Your task to perform on an android device: toggle data saver in the chrome app Image 0: 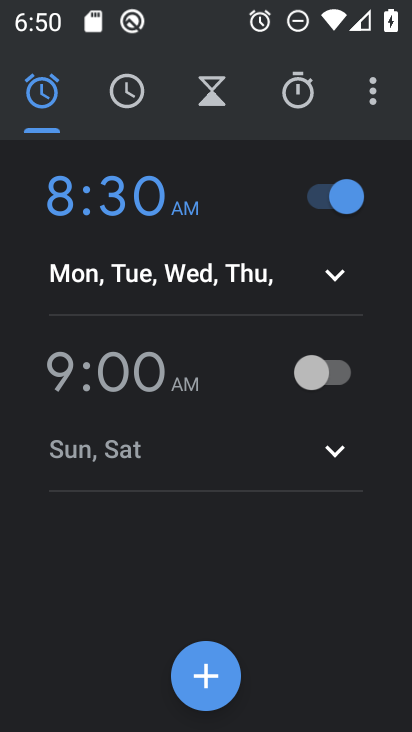
Step 0: press home button
Your task to perform on an android device: toggle data saver in the chrome app Image 1: 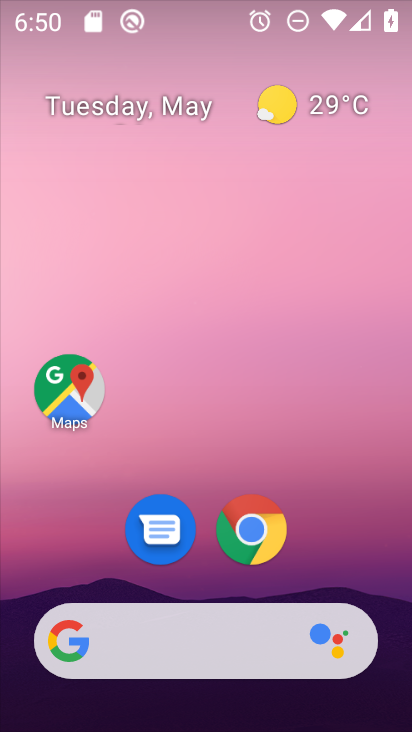
Step 1: drag from (387, 626) to (293, 14)
Your task to perform on an android device: toggle data saver in the chrome app Image 2: 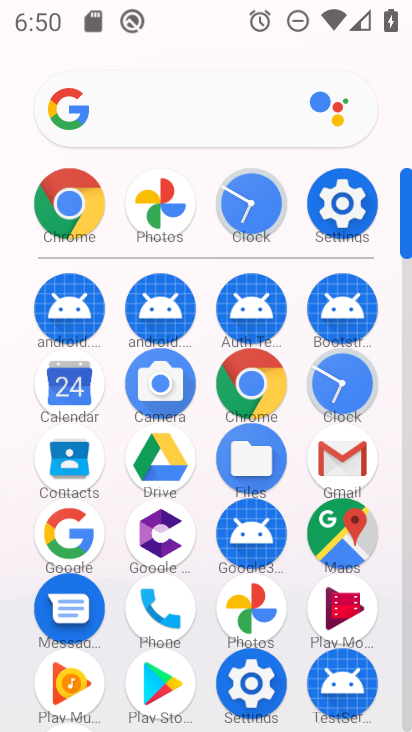
Step 2: click (270, 388)
Your task to perform on an android device: toggle data saver in the chrome app Image 3: 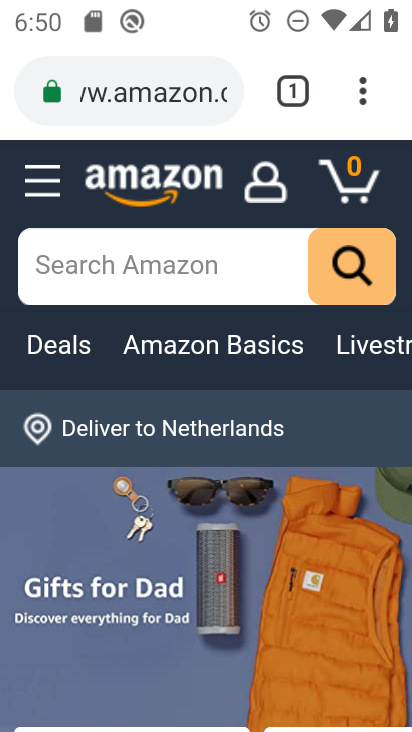
Step 3: press back button
Your task to perform on an android device: toggle data saver in the chrome app Image 4: 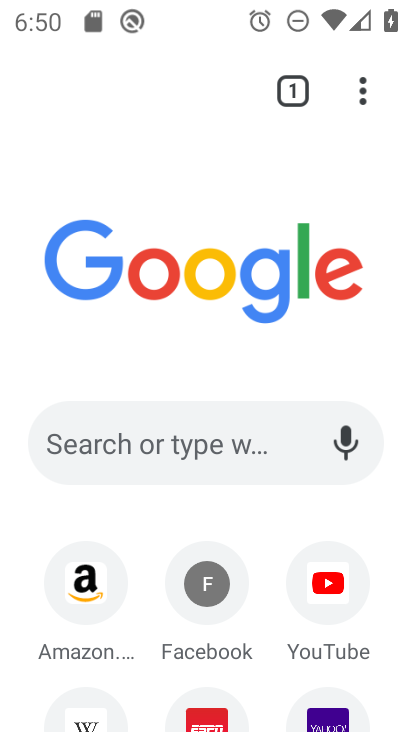
Step 4: click (367, 85)
Your task to perform on an android device: toggle data saver in the chrome app Image 5: 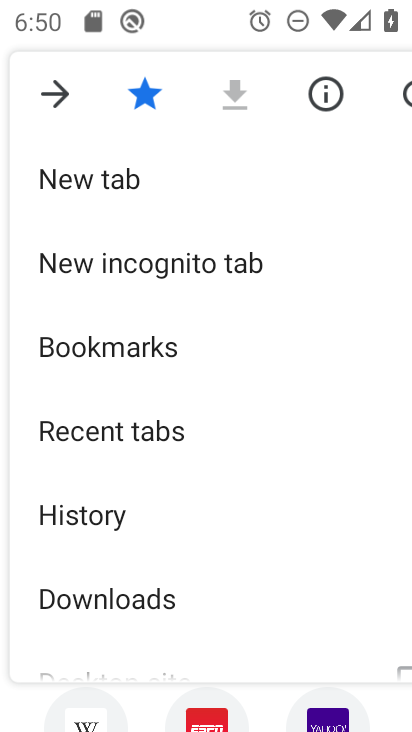
Step 5: drag from (251, 594) to (193, 116)
Your task to perform on an android device: toggle data saver in the chrome app Image 6: 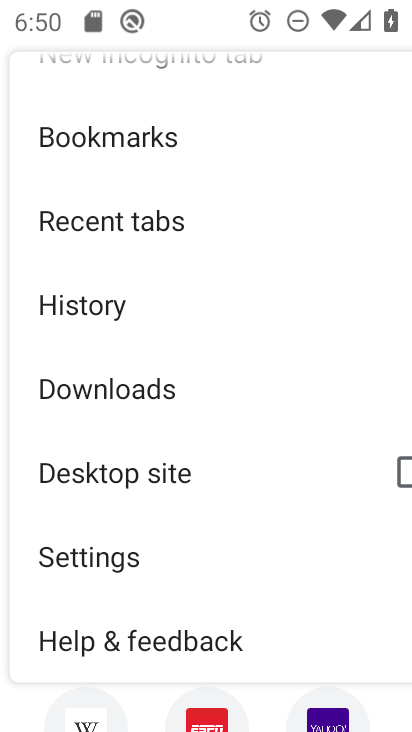
Step 6: click (131, 556)
Your task to perform on an android device: toggle data saver in the chrome app Image 7: 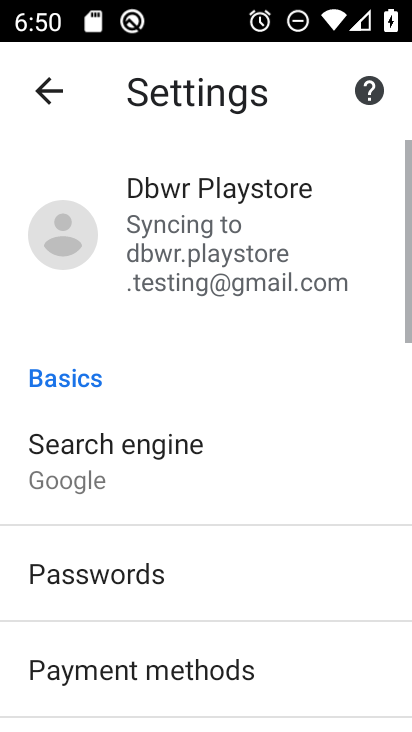
Step 7: drag from (139, 577) to (142, 44)
Your task to perform on an android device: toggle data saver in the chrome app Image 8: 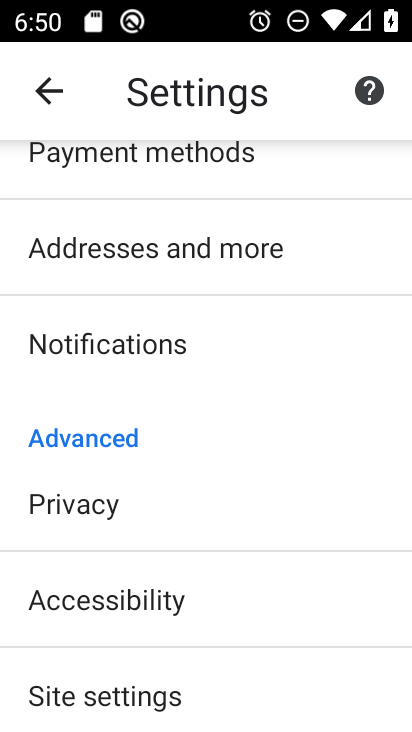
Step 8: drag from (169, 625) to (173, 159)
Your task to perform on an android device: toggle data saver in the chrome app Image 9: 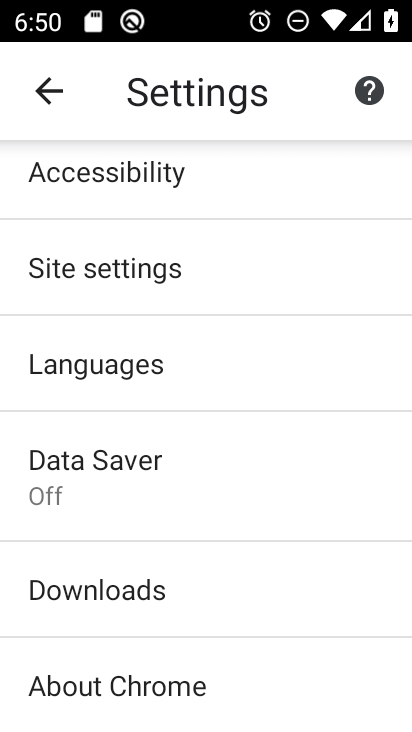
Step 9: click (179, 477)
Your task to perform on an android device: toggle data saver in the chrome app Image 10: 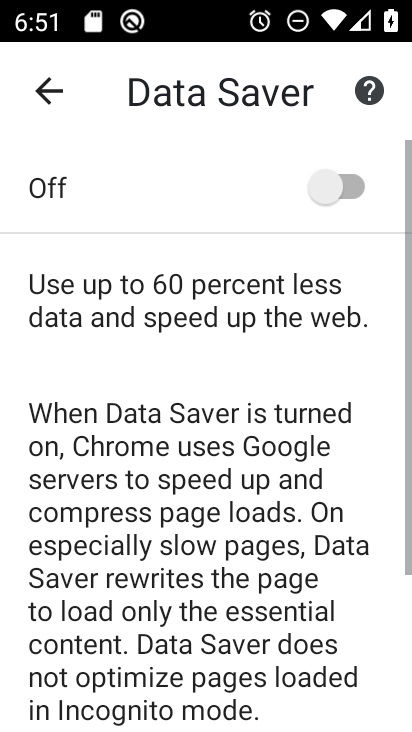
Step 10: click (334, 177)
Your task to perform on an android device: toggle data saver in the chrome app Image 11: 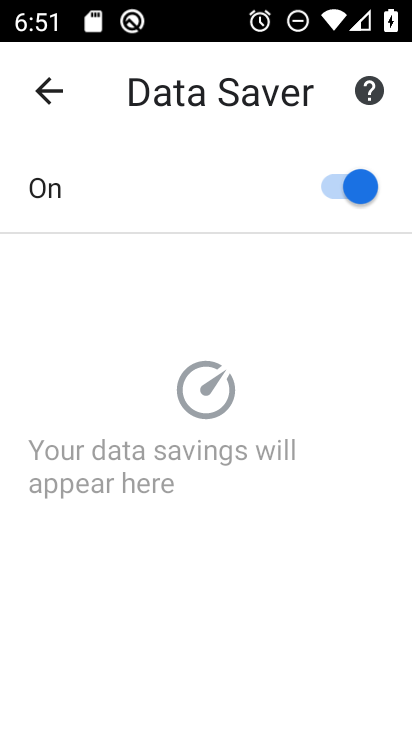
Step 11: task complete